Your task to perform on an android device: Find coffee shops on Maps Image 0: 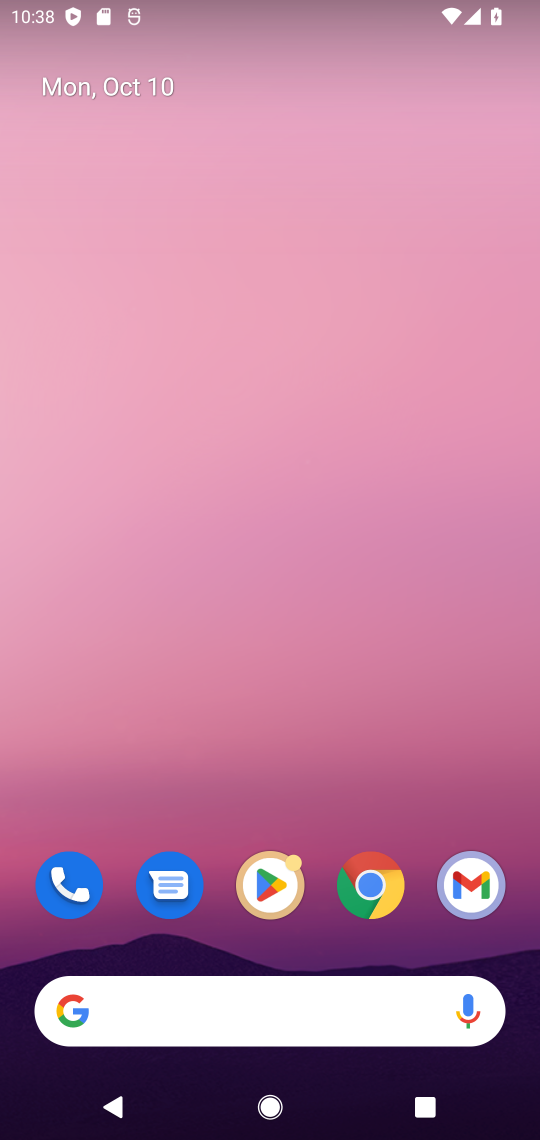
Step 0: drag from (367, 967) to (364, 456)
Your task to perform on an android device: Find coffee shops on Maps Image 1: 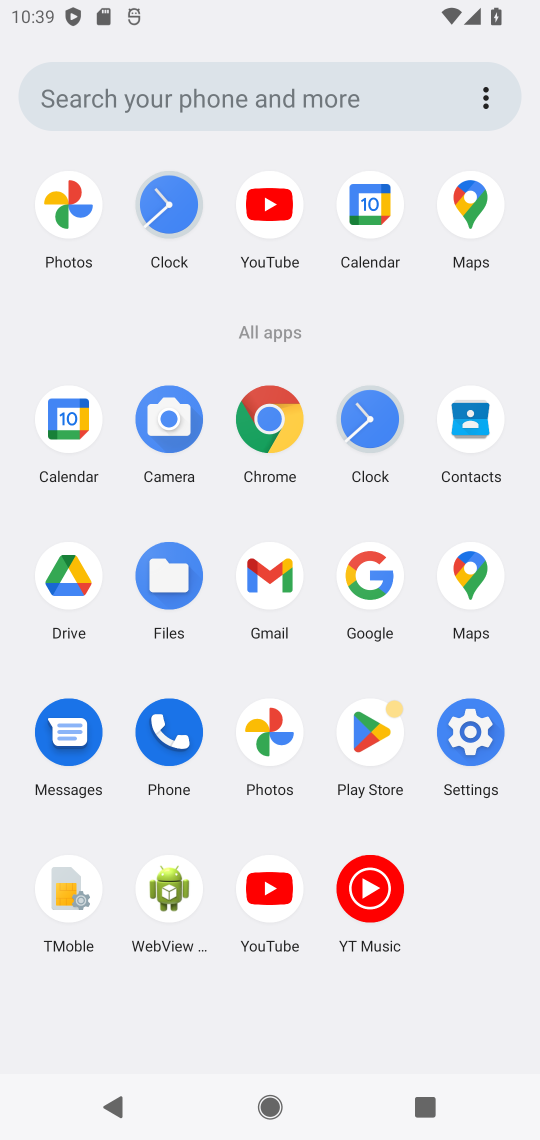
Step 1: click (374, 618)
Your task to perform on an android device: Find coffee shops on Maps Image 2: 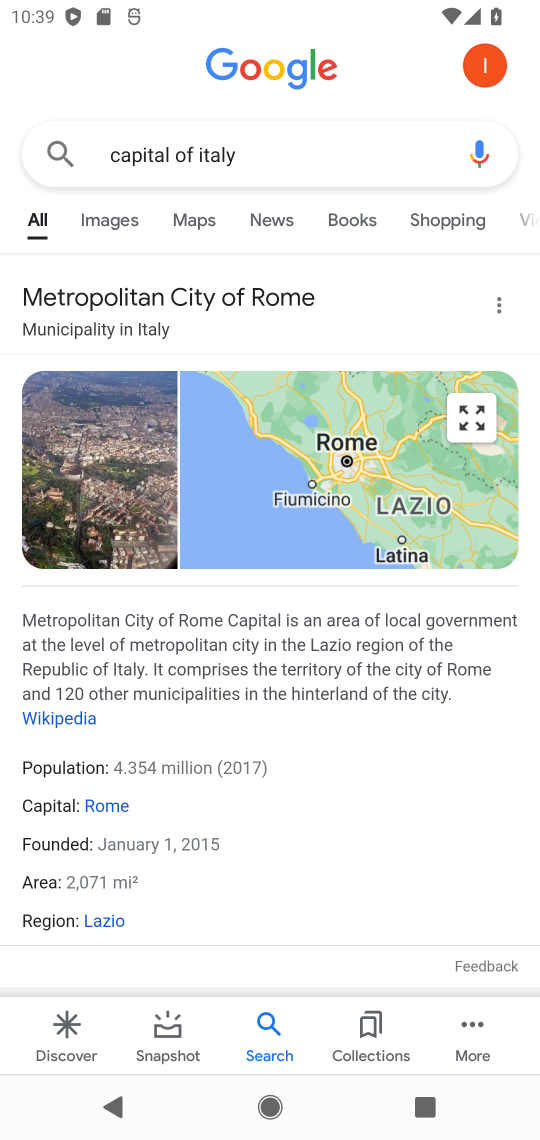
Step 2: press home button
Your task to perform on an android device: Find coffee shops on Maps Image 3: 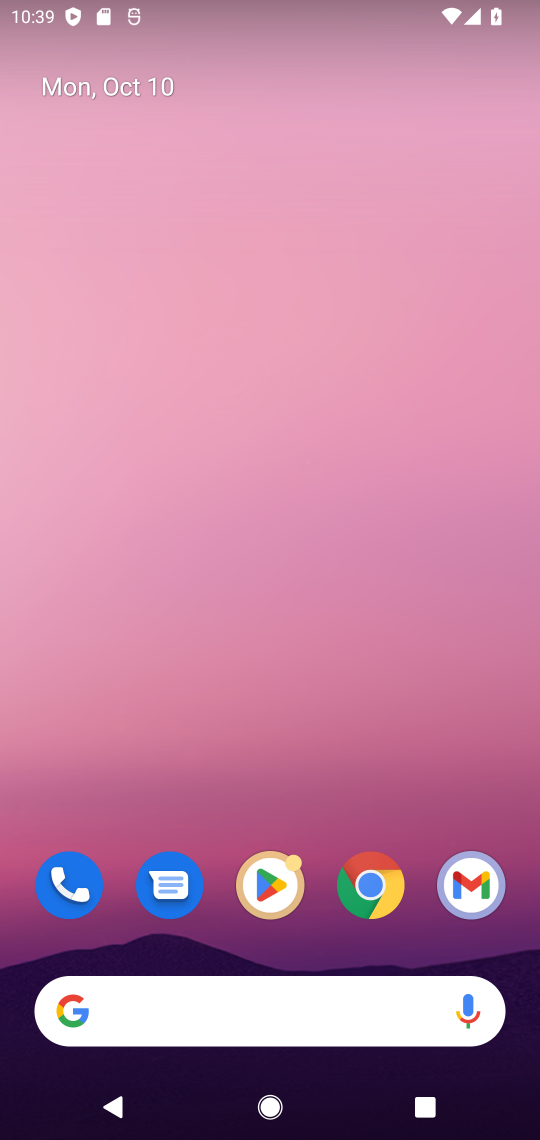
Step 3: drag from (357, 930) to (369, 488)
Your task to perform on an android device: Find coffee shops on Maps Image 4: 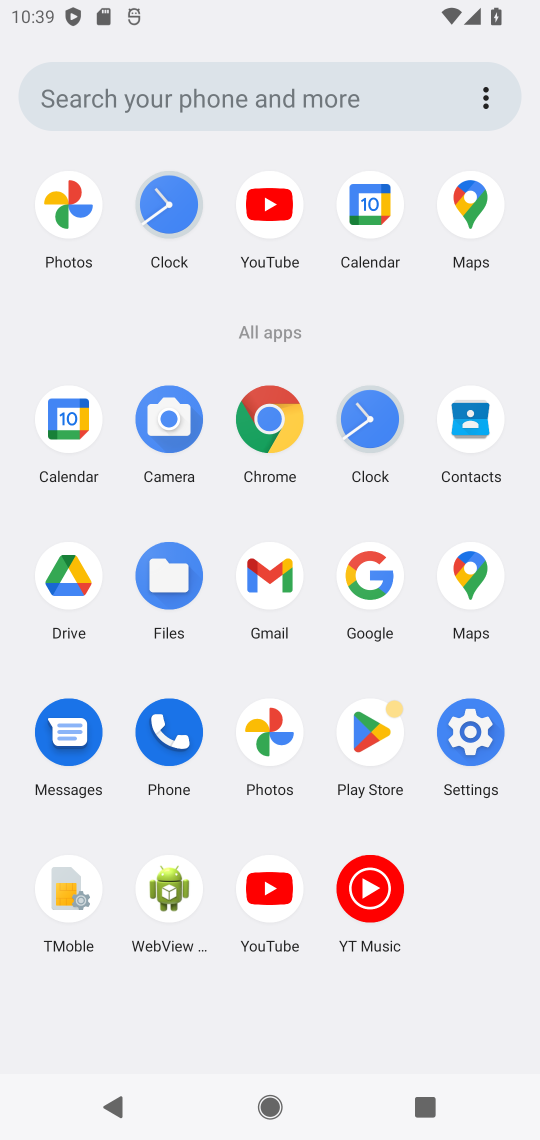
Step 4: click (471, 601)
Your task to perform on an android device: Find coffee shops on Maps Image 5: 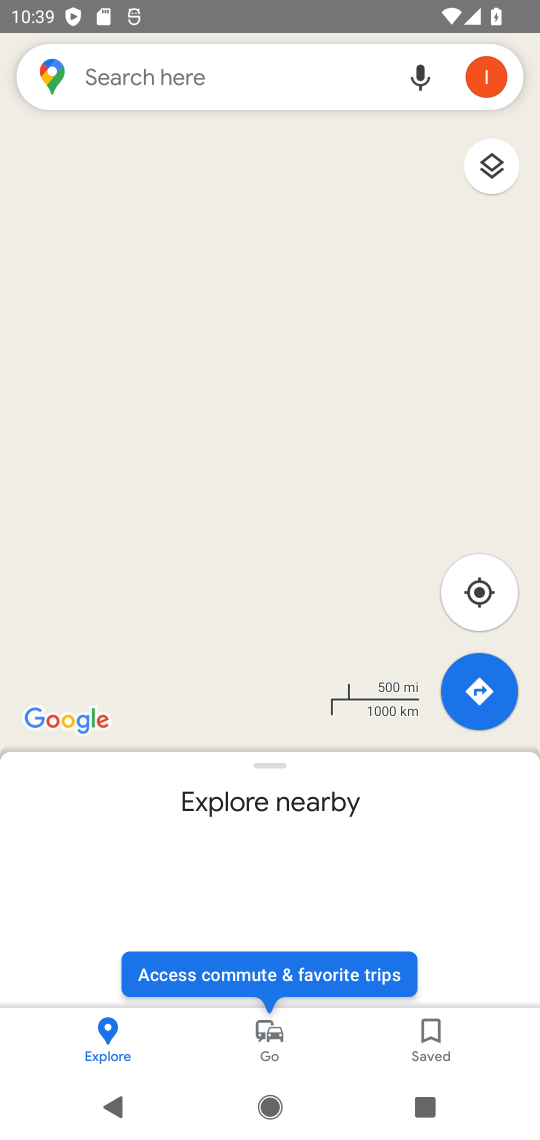
Step 5: click (265, 87)
Your task to perform on an android device: Find coffee shops on Maps Image 6: 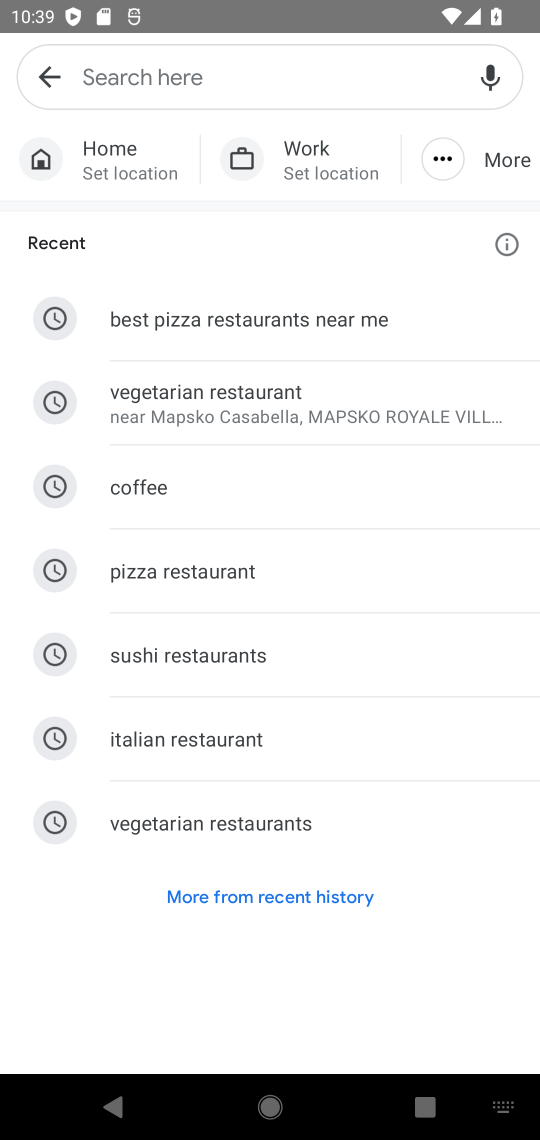
Step 6: type "coffee shops"
Your task to perform on an android device: Find coffee shops on Maps Image 7: 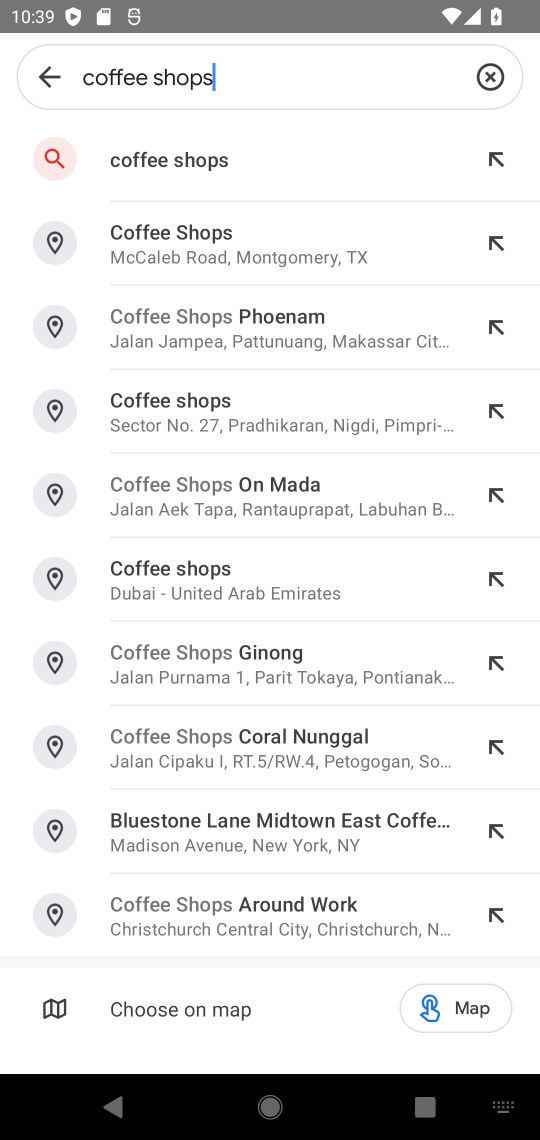
Step 7: click (287, 240)
Your task to perform on an android device: Find coffee shops on Maps Image 8: 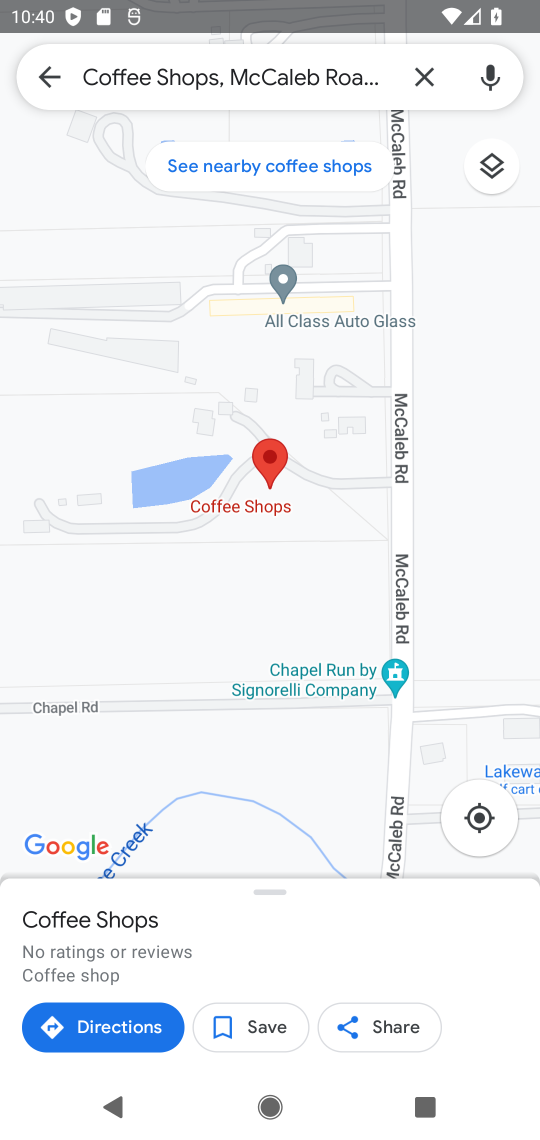
Step 8: task complete